Your task to perform on an android device: open chrome privacy settings Image 0: 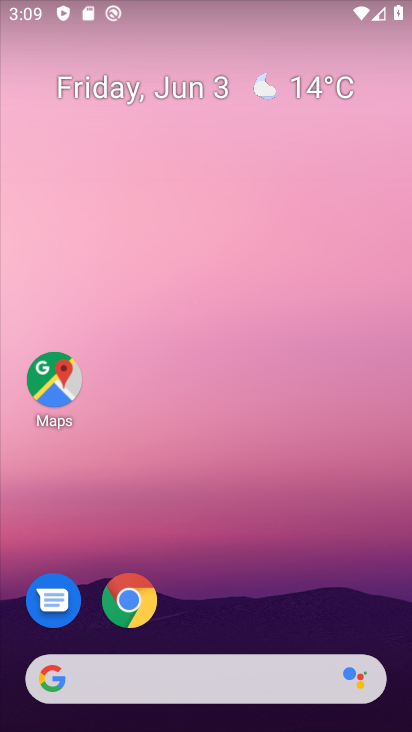
Step 0: click (133, 615)
Your task to perform on an android device: open chrome privacy settings Image 1: 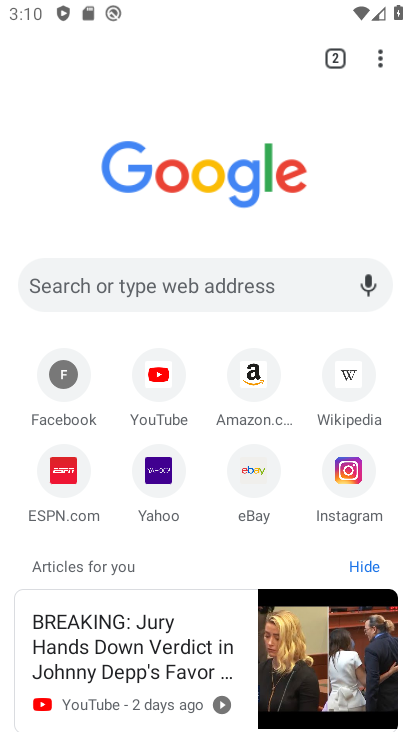
Step 1: drag from (383, 66) to (218, 467)
Your task to perform on an android device: open chrome privacy settings Image 2: 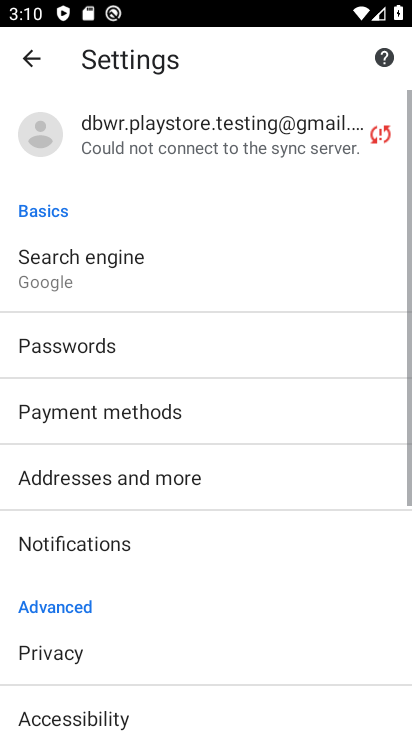
Step 2: drag from (173, 659) to (295, 408)
Your task to perform on an android device: open chrome privacy settings Image 3: 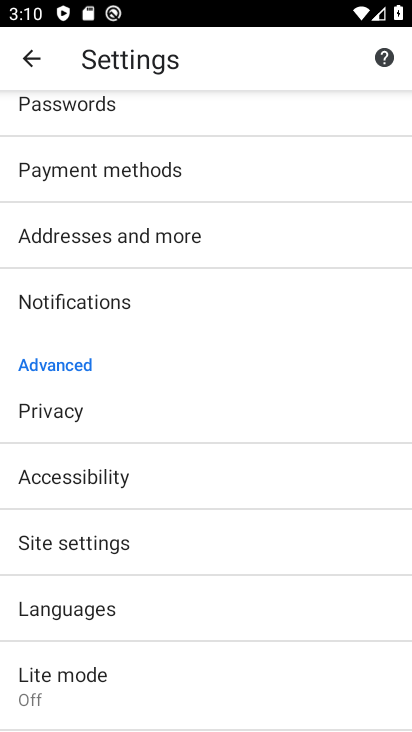
Step 3: click (168, 405)
Your task to perform on an android device: open chrome privacy settings Image 4: 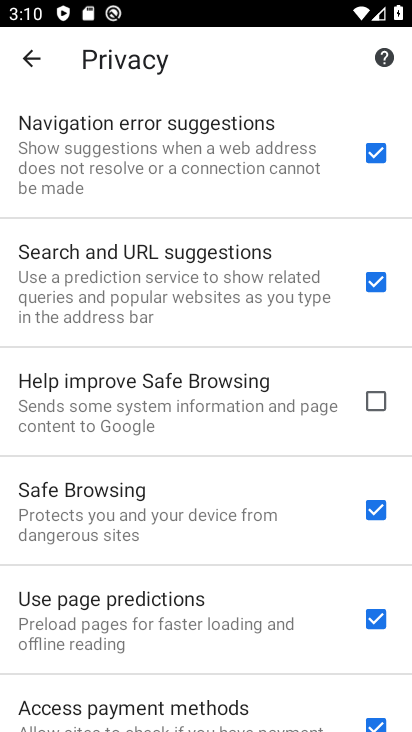
Step 4: task complete